Your task to perform on an android device: Open accessibility settings Image 0: 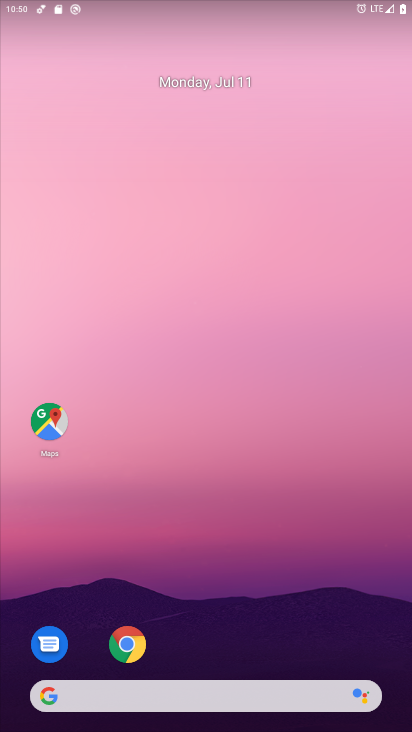
Step 0: drag from (215, 658) to (219, 85)
Your task to perform on an android device: Open accessibility settings Image 1: 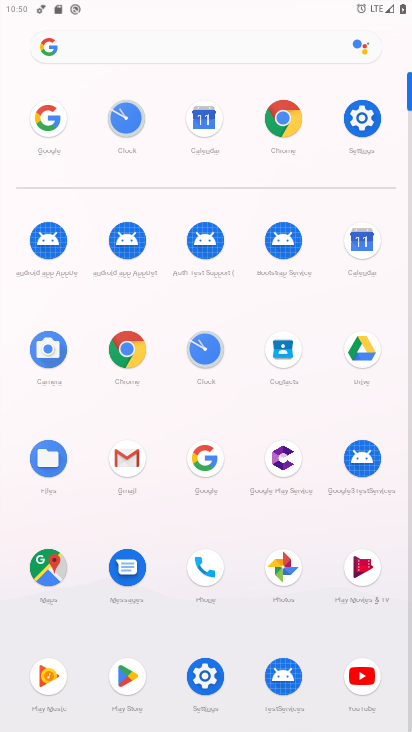
Step 1: click (357, 113)
Your task to perform on an android device: Open accessibility settings Image 2: 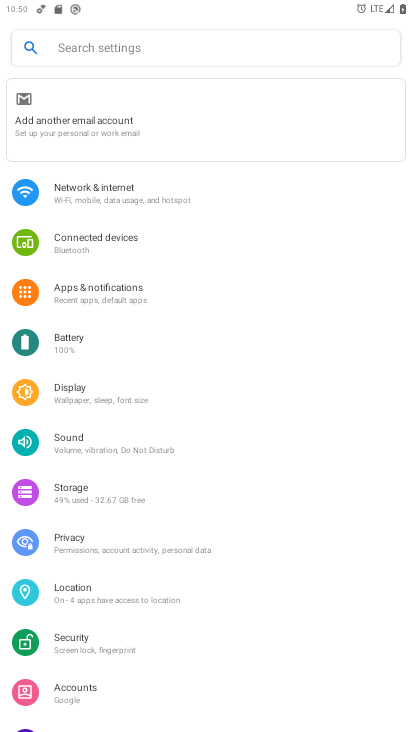
Step 2: drag from (137, 551) to (169, 270)
Your task to perform on an android device: Open accessibility settings Image 3: 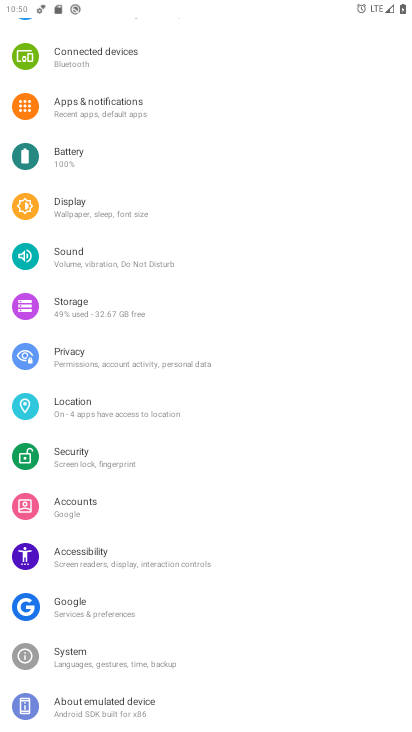
Step 3: click (134, 551)
Your task to perform on an android device: Open accessibility settings Image 4: 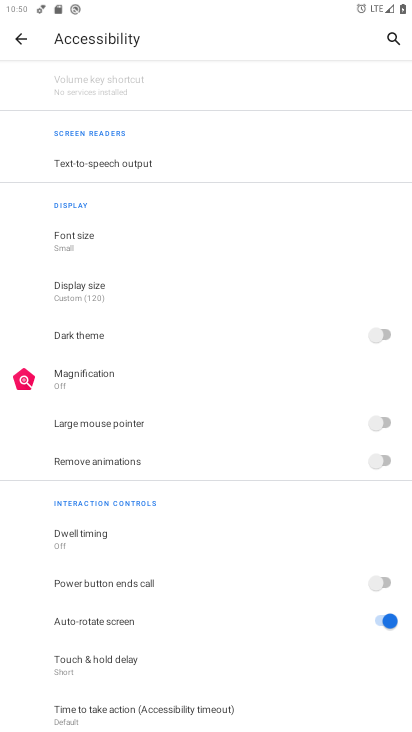
Step 4: task complete